Your task to perform on an android device: Open eBay Image 0: 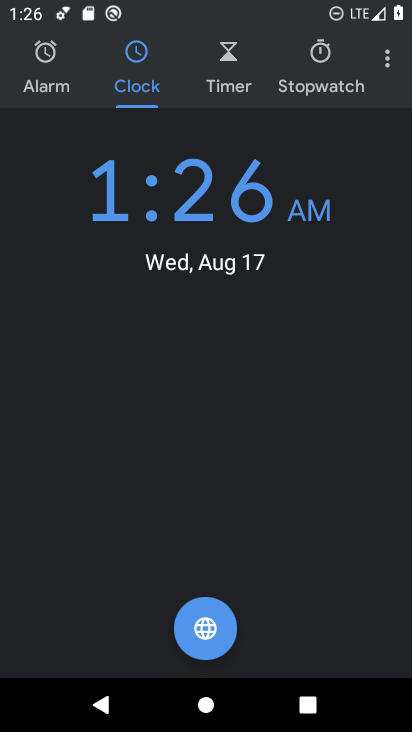
Step 0: press home button
Your task to perform on an android device: Open eBay Image 1: 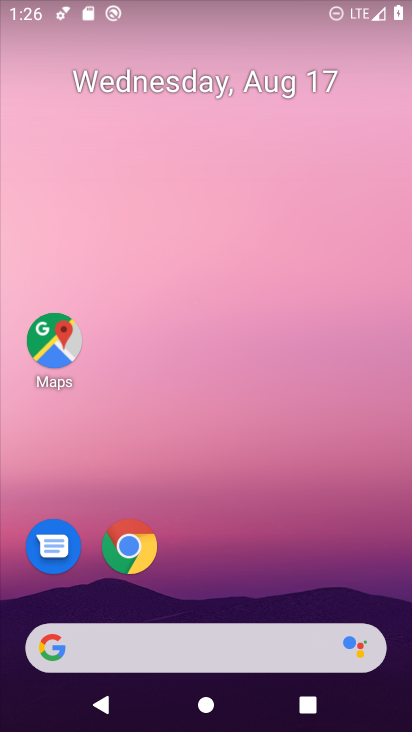
Step 1: click (129, 545)
Your task to perform on an android device: Open eBay Image 2: 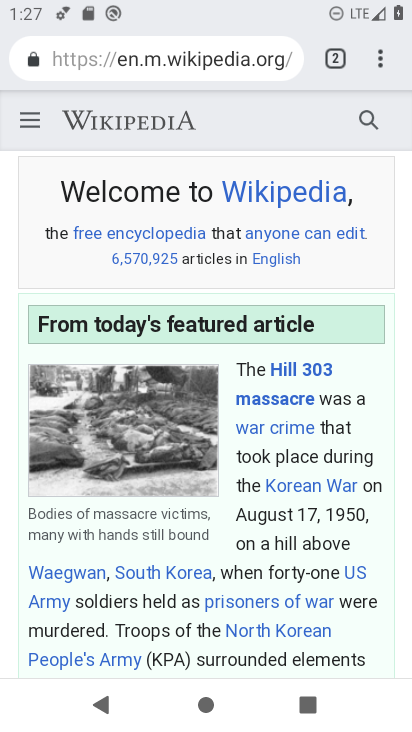
Step 2: click (381, 58)
Your task to perform on an android device: Open eBay Image 3: 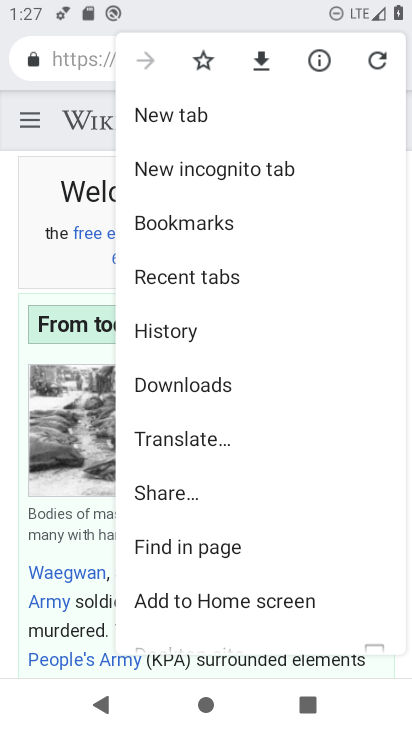
Step 3: click (201, 113)
Your task to perform on an android device: Open eBay Image 4: 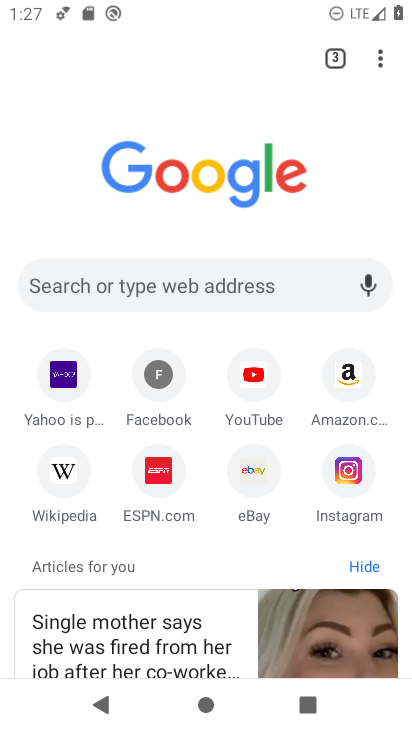
Step 4: click (250, 471)
Your task to perform on an android device: Open eBay Image 5: 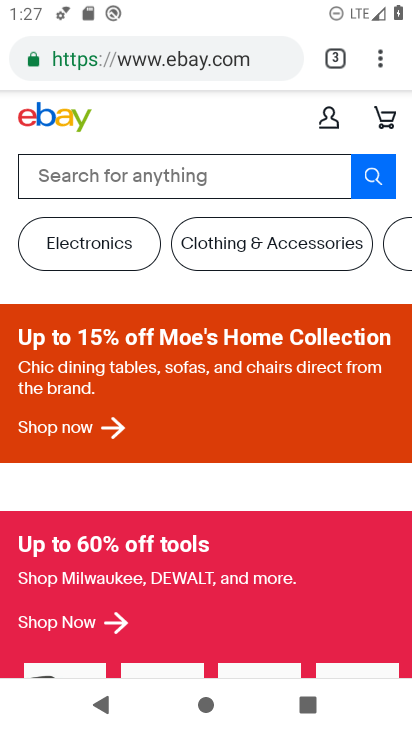
Step 5: task complete